Your task to perform on an android device: Search for "sony triple a" on walmart.com, select the first entry, add it to the cart, then select checkout. Image 0: 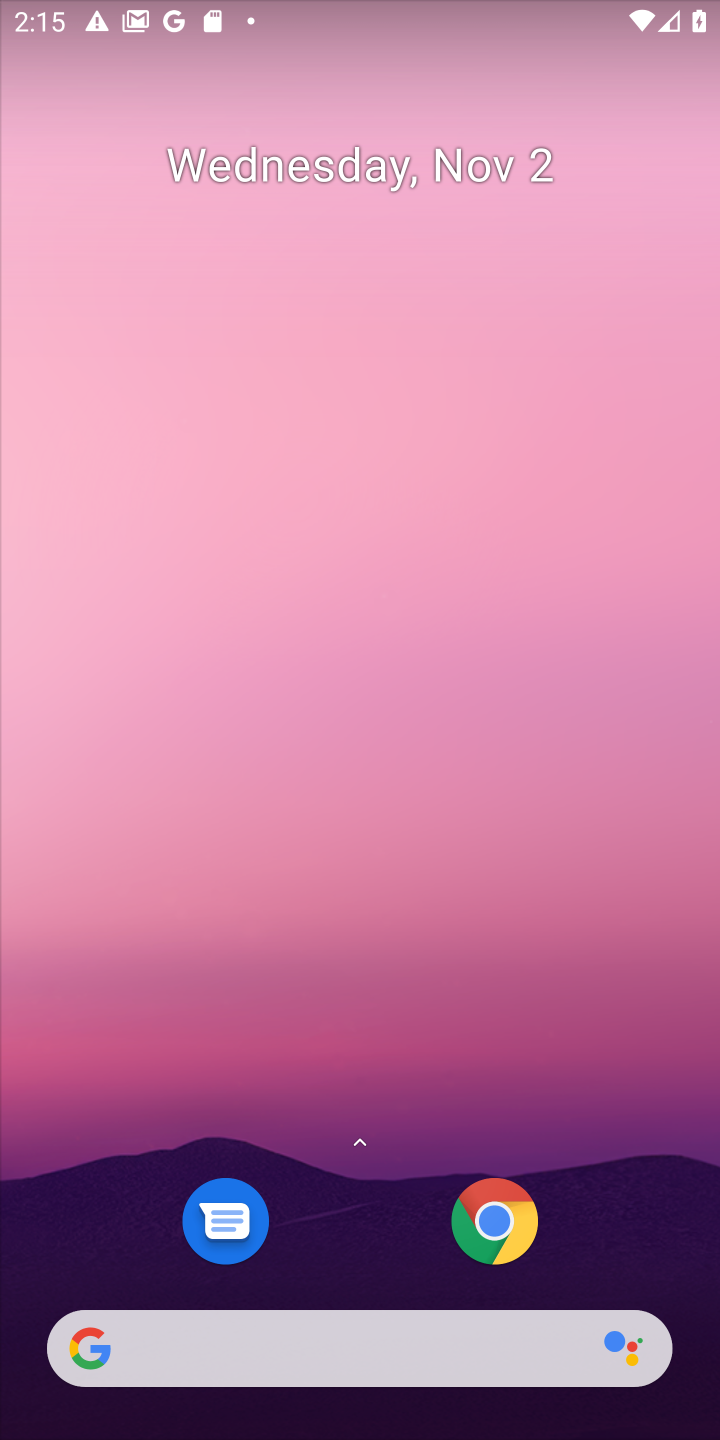
Step 0: press home button
Your task to perform on an android device: Search for "sony triple a" on walmart.com, select the first entry, add it to the cart, then select checkout. Image 1: 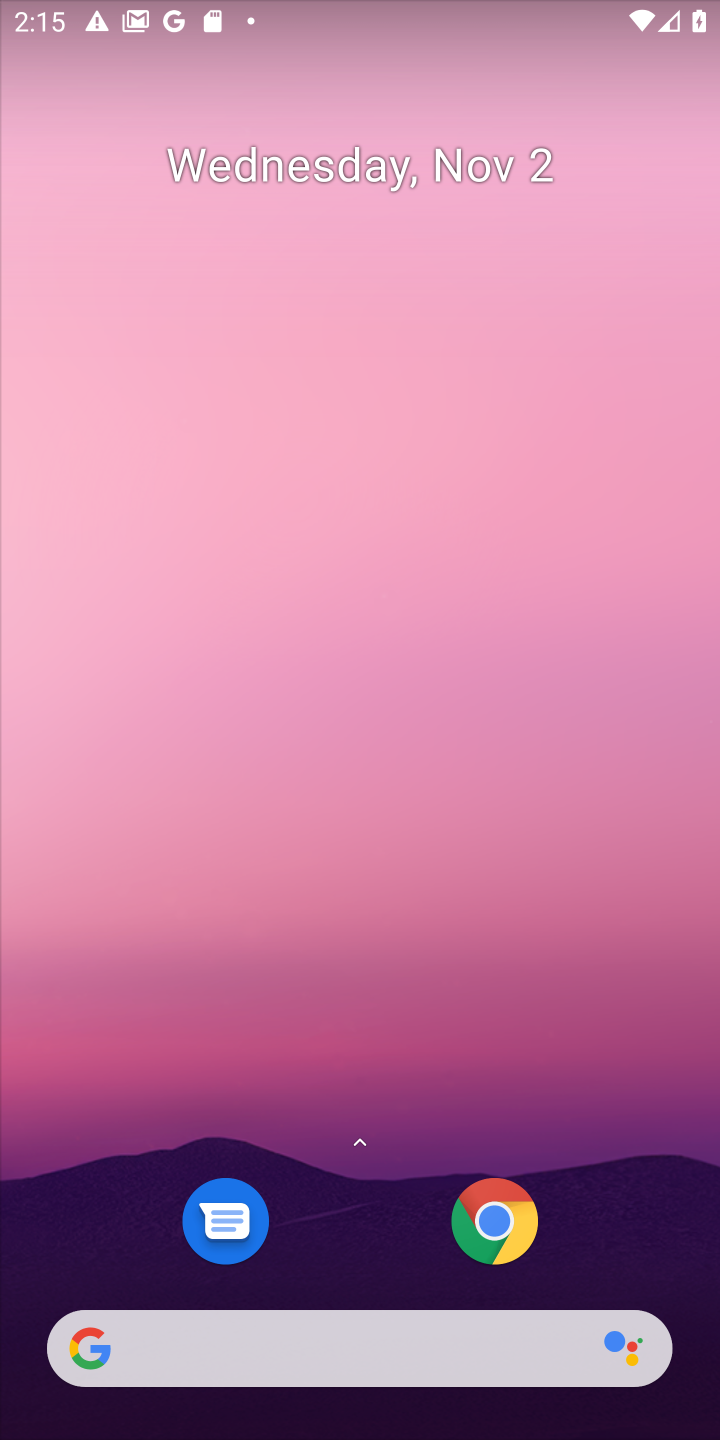
Step 1: click (495, 1359)
Your task to perform on an android device: Search for "sony triple a" on walmart.com, select the first entry, add it to the cart, then select checkout. Image 2: 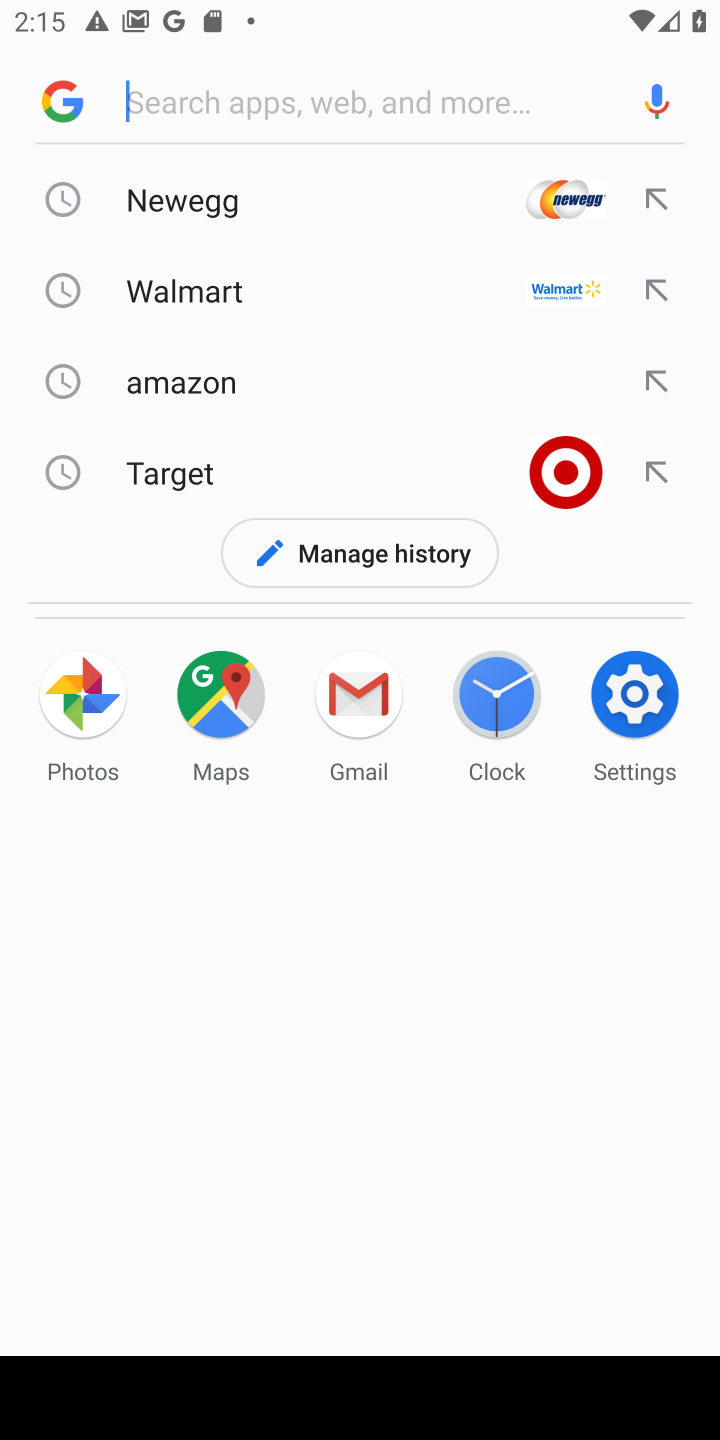
Step 2: click (315, 303)
Your task to perform on an android device: Search for "sony triple a" on walmart.com, select the first entry, add it to the cart, then select checkout. Image 3: 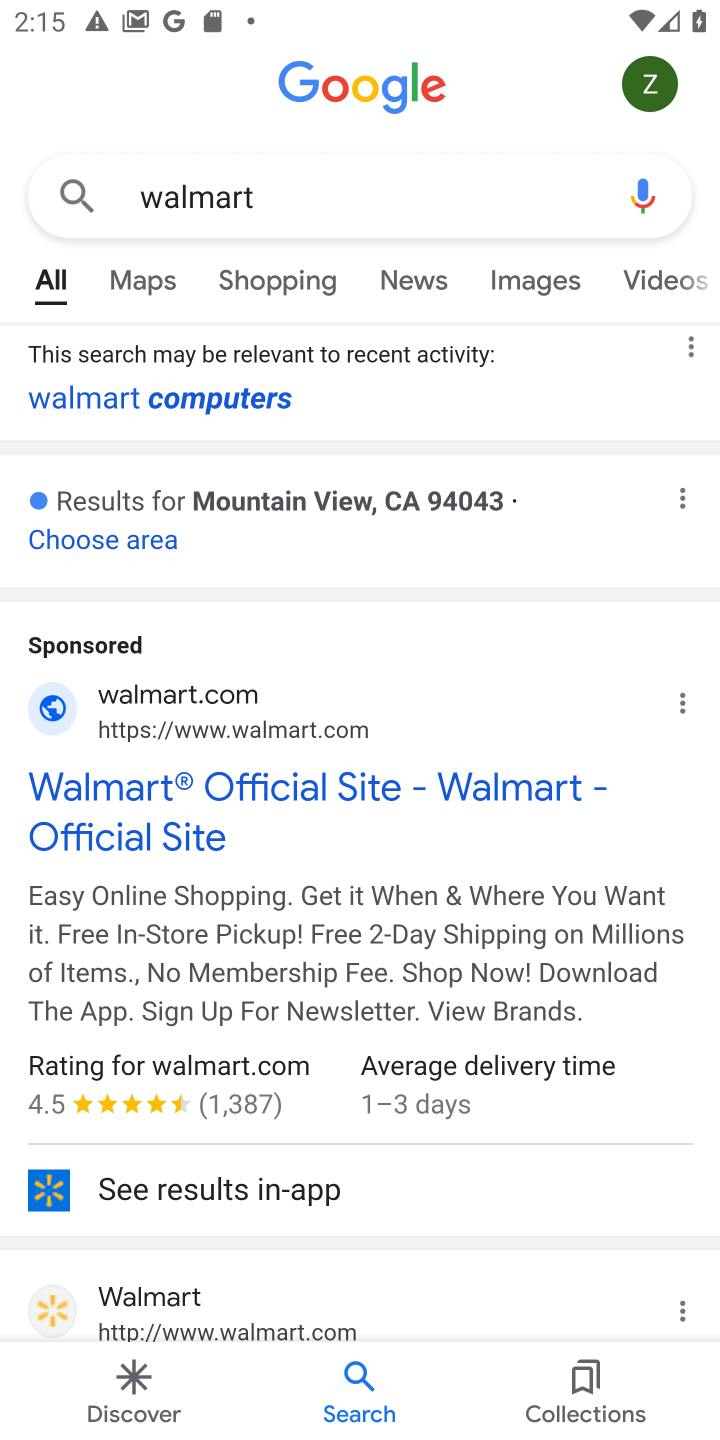
Step 3: click (160, 764)
Your task to perform on an android device: Search for "sony triple a" on walmart.com, select the first entry, add it to the cart, then select checkout. Image 4: 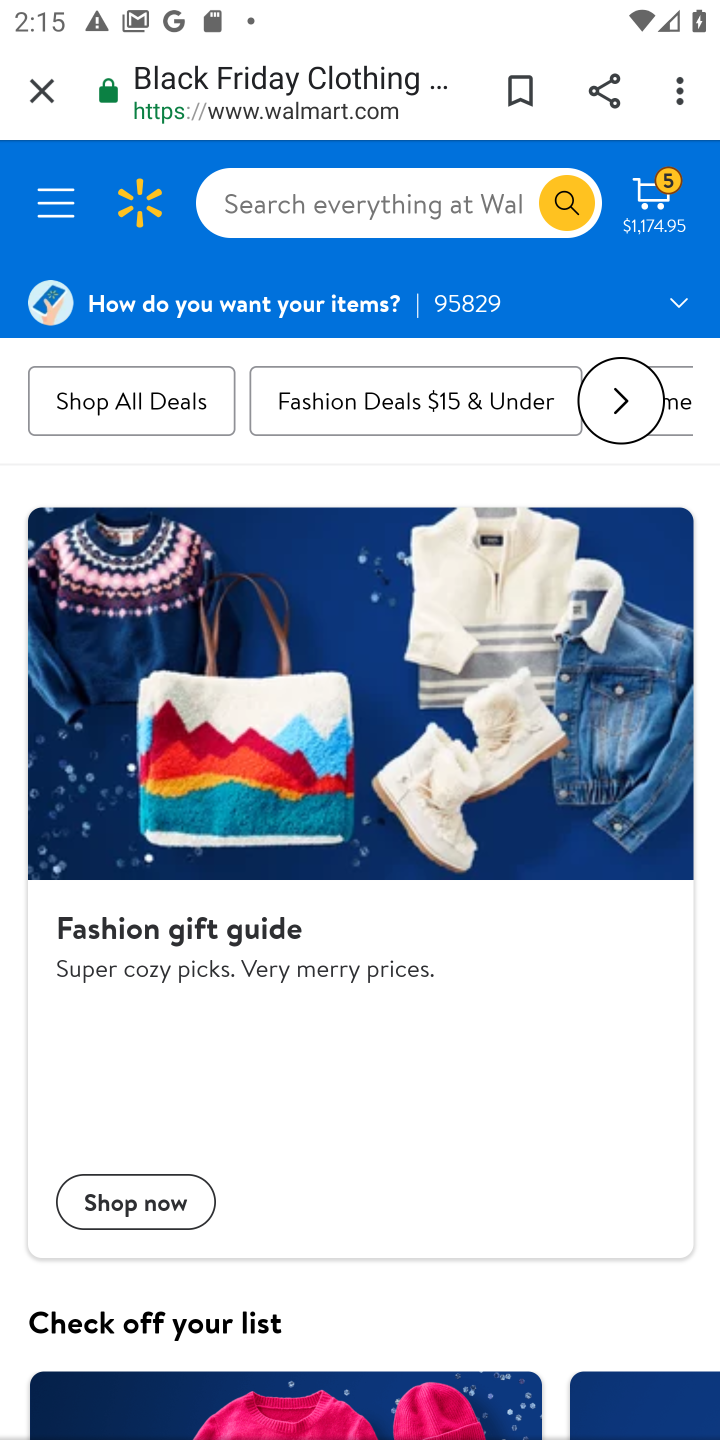
Step 4: click (351, 184)
Your task to perform on an android device: Search for "sony triple a" on walmart.com, select the first entry, add it to the cart, then select checkout. Image 5: 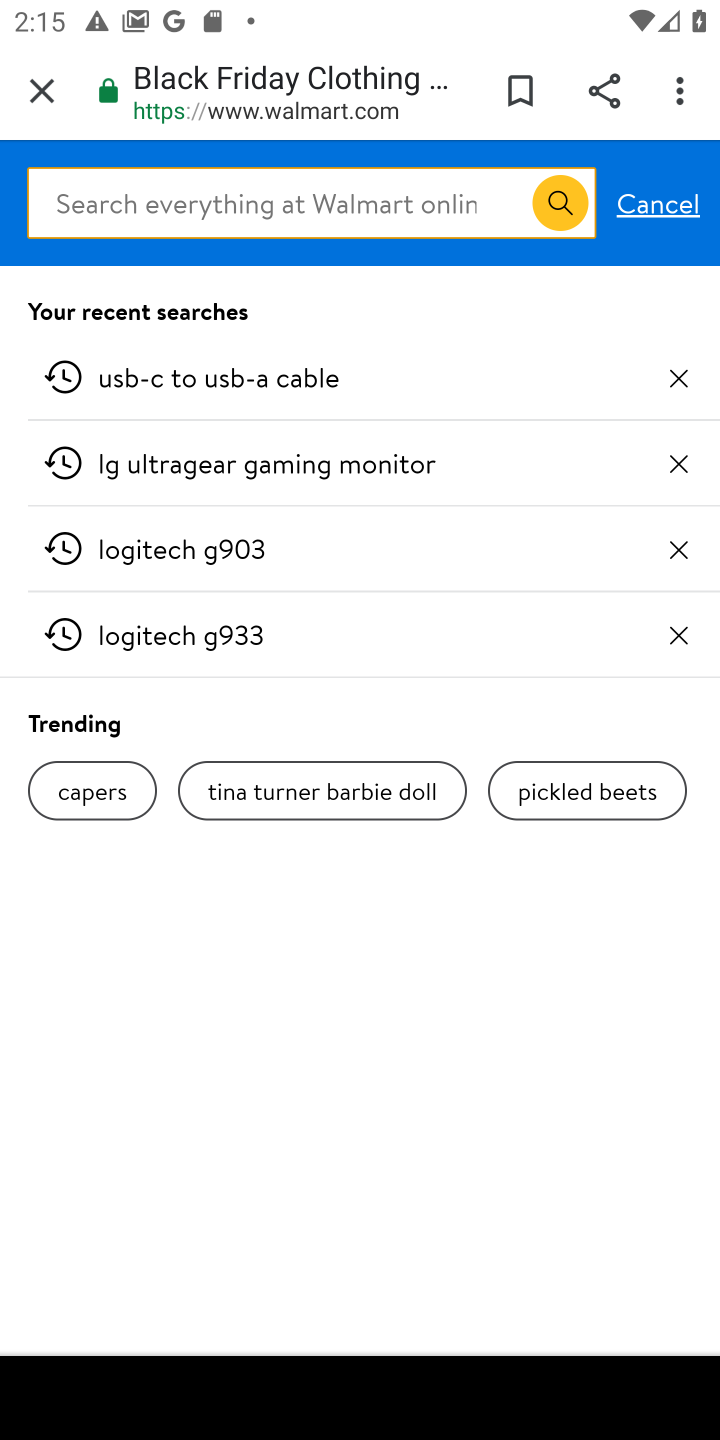
Step 5: type "sony triple A"
Your task to perform on an android device: Search for "sony triple a" on walmart.com, select the first entry, add it to the cart, then select checkout. Image 6: 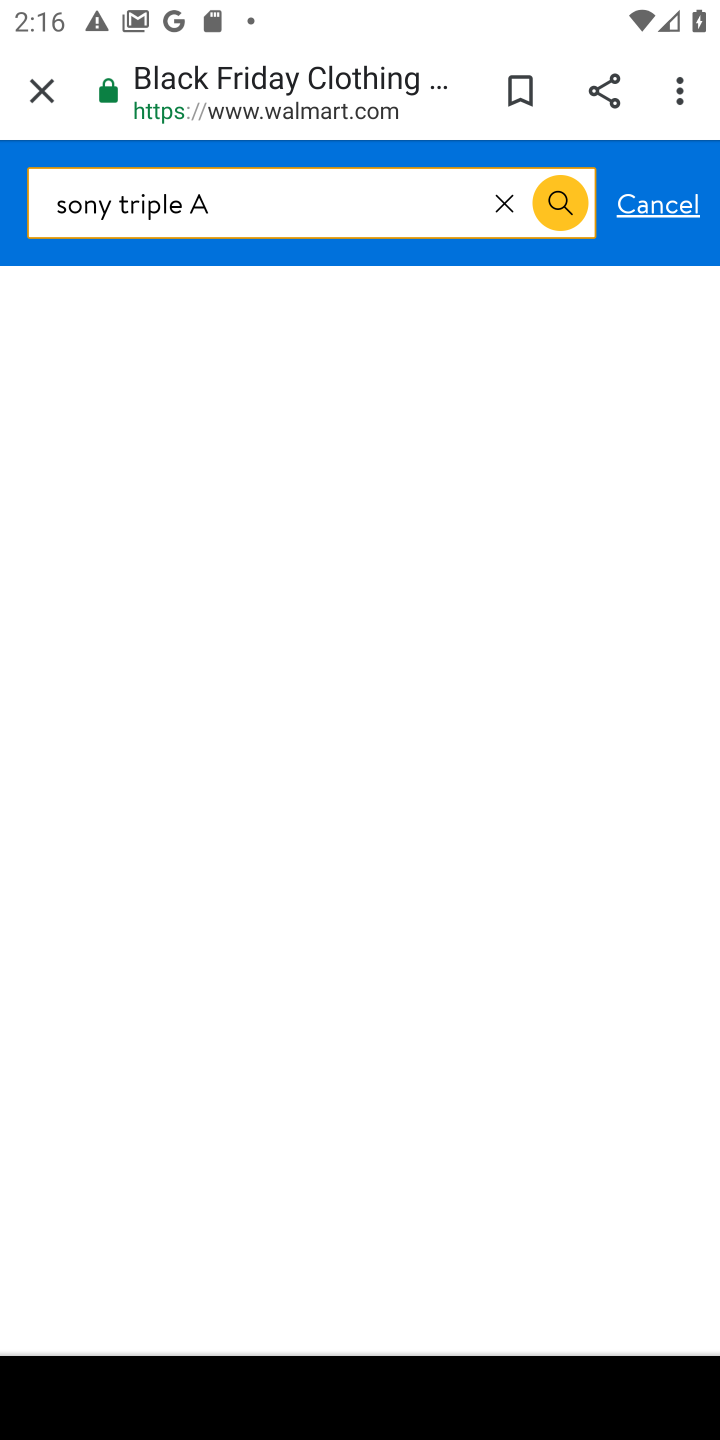
Step 6: click (570, 219)
Your task to perform on an android device: Search for "sony triple a" on walmart.com, select the first entry, add it to the cart, then select checkout. Image 7: 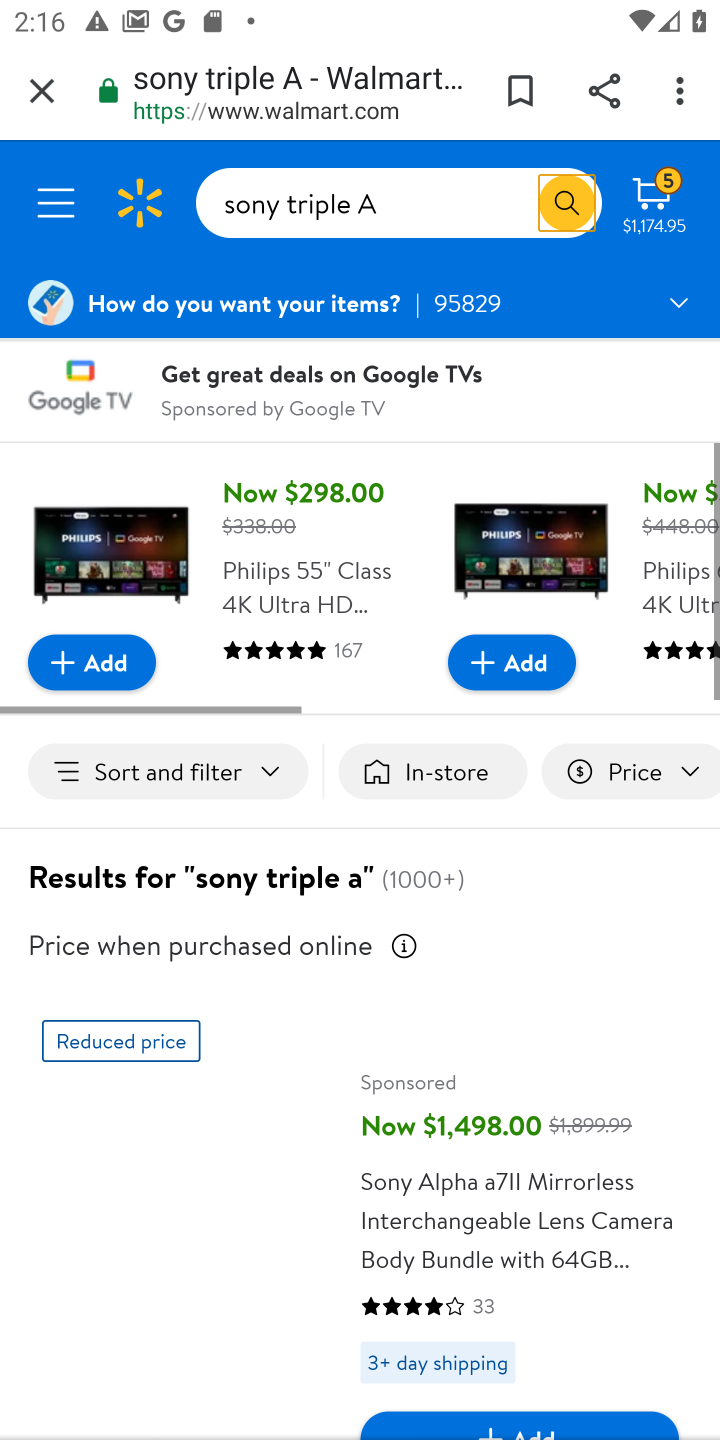
Step 7: click (611, 1434)
Your task to perform on an android device: Search for "sony triple a" on walmart.com, select the first entry, add it to the cart, then select checkout. Image 8: 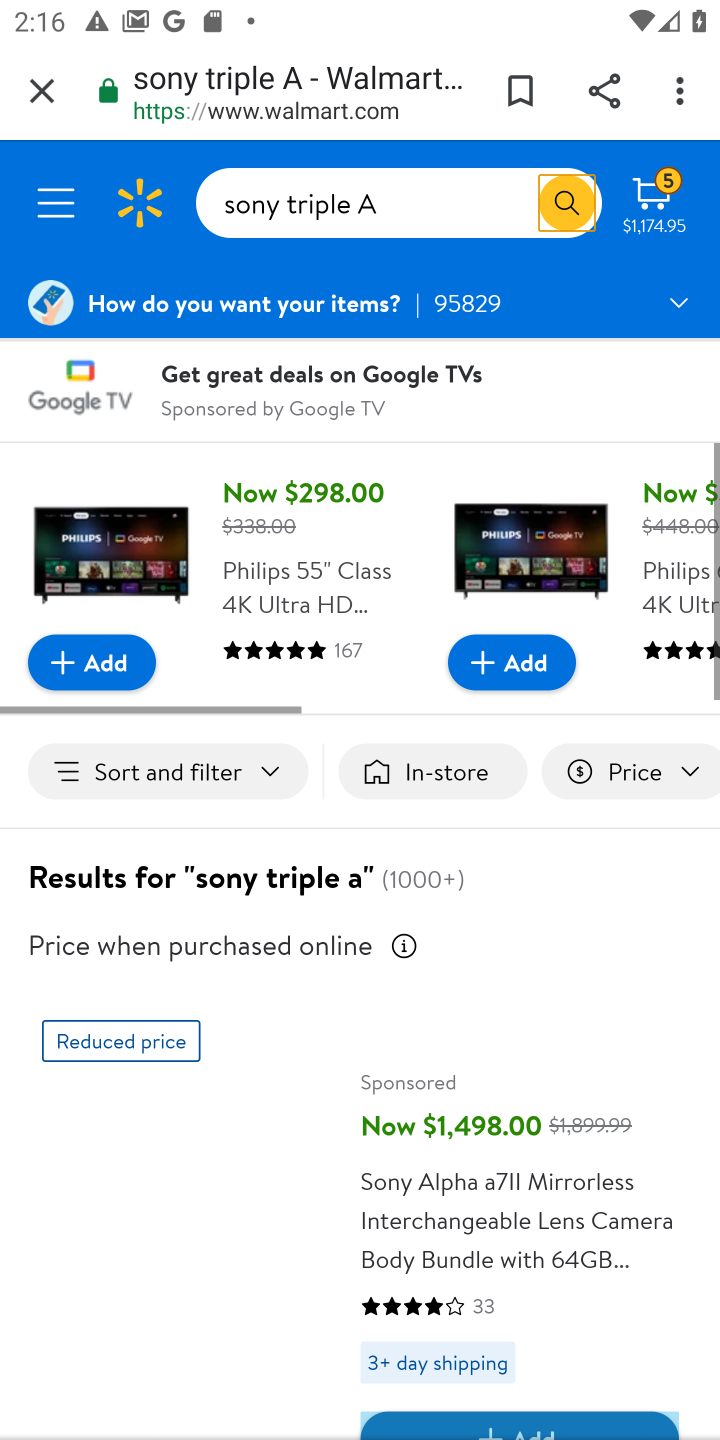
Step 8: task complete